Your task to perform on an android device: turn off notifications in google photos Image 0: 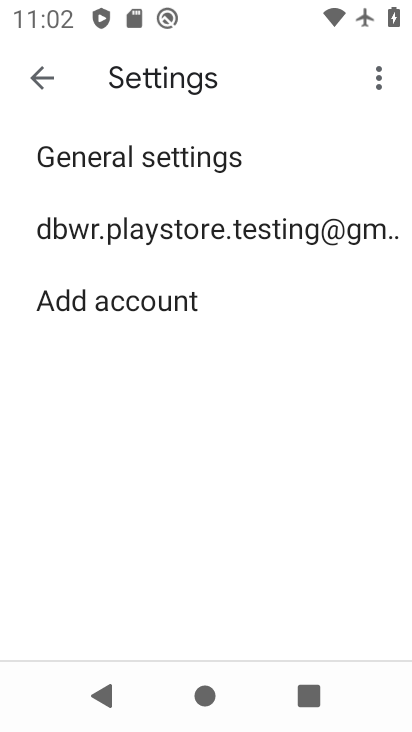
Step 0: press home button
Your task to perform on an android device: turn off notifications in google photos Image 1: 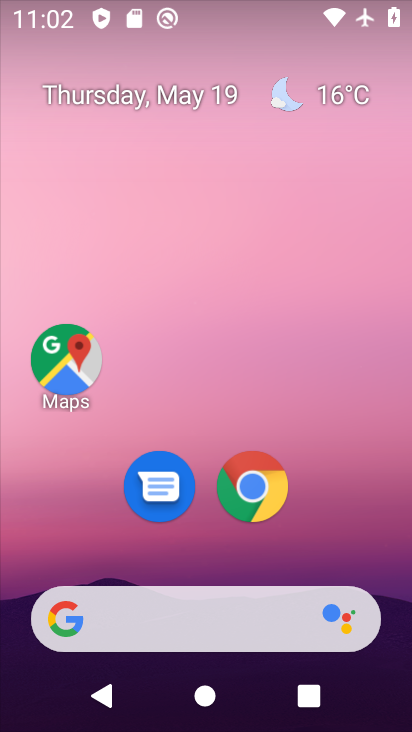
Step 1: drag from (360, 543) to (339, 208)
Your task to perform on an android device: turn off notifications in google photos Image 2: 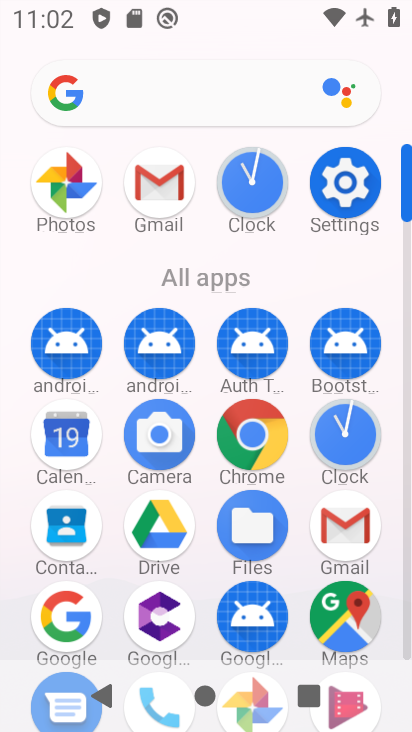
Step 2: click (409, 640)
Your task to perform on an android device: turn off notifications in google photos Image 3: 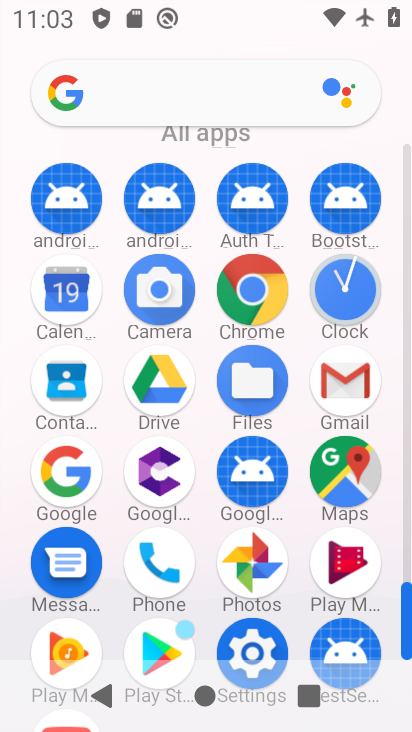
Step 3: click (277, 576)
Your task to perform on an android device: turn off notifications in google photos Image 4: 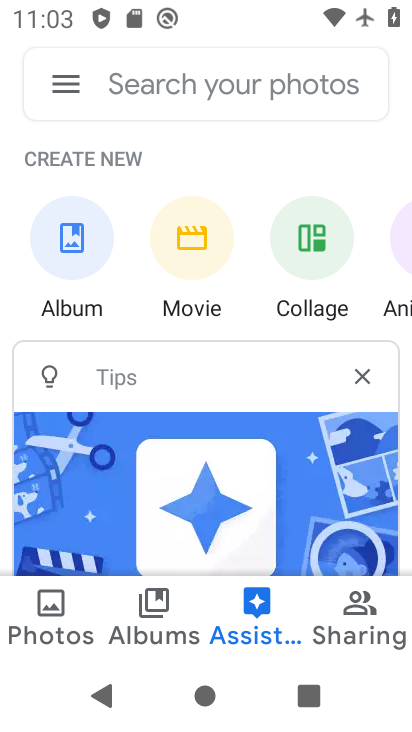
Step 4: click (83, 87)
Your task to perform on an android device: turn off notifications in google photos Image 5: 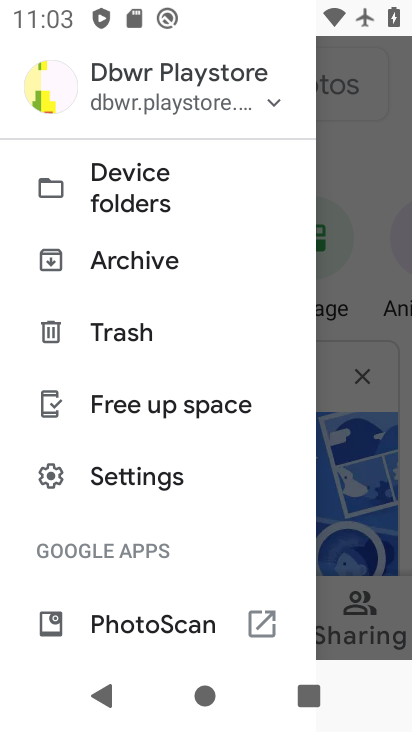
Step 5: click (103, 481)
Your task to perform on an android device: turn off notifications in google photos Image 6: 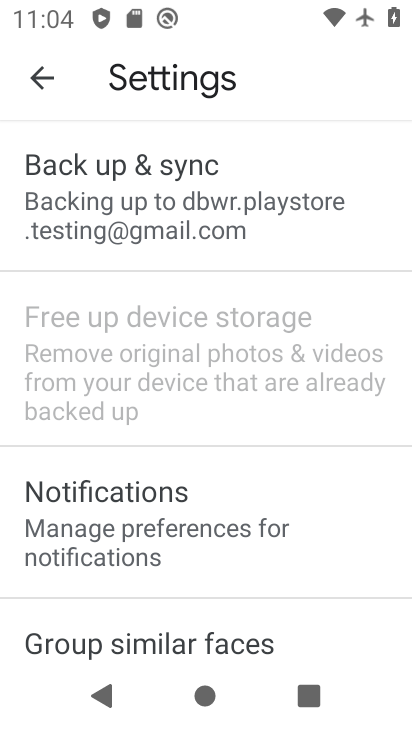
Step 6: click (195, 513)
Your task to perform on an android device: turn off notifications in google photos Image 7: 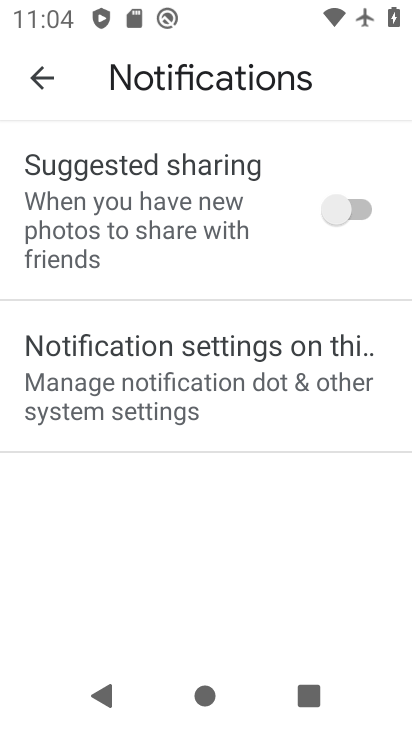
Step 7: click (323, 225)
Your task to perform on an android device: turn off notifications in google photos Image 8: 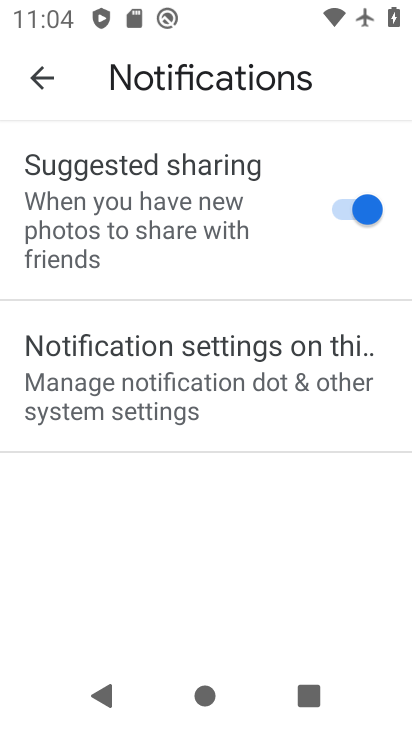
Step 8: task complete